Your task to perform on an android device: turn off translation in the chrome app Image 0: 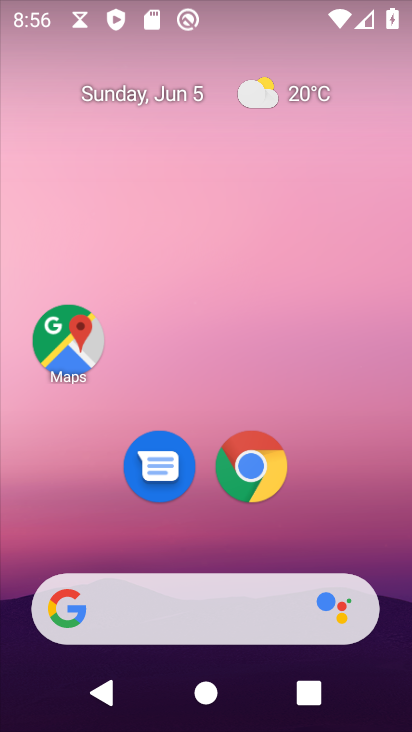
Step 0: click (254, 472)
Your task to perform on an android device: turn off translation in the chrome app Image 1: 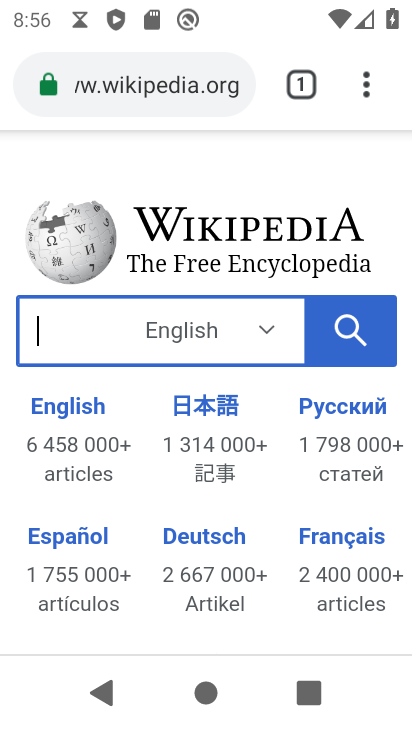
Step 1: click (373, 84)
Your task to perform on an android device: turn off translation in the chrome app Image 2: 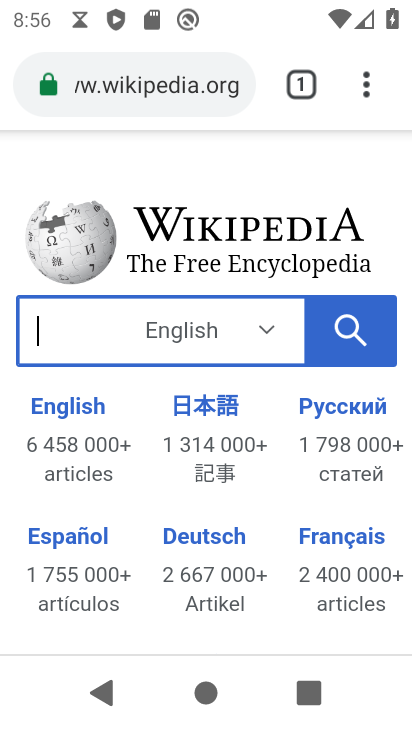
Step 2: click (367, 95)
Your task to perform on an android device: turn off translation in the chrome app Image 3: 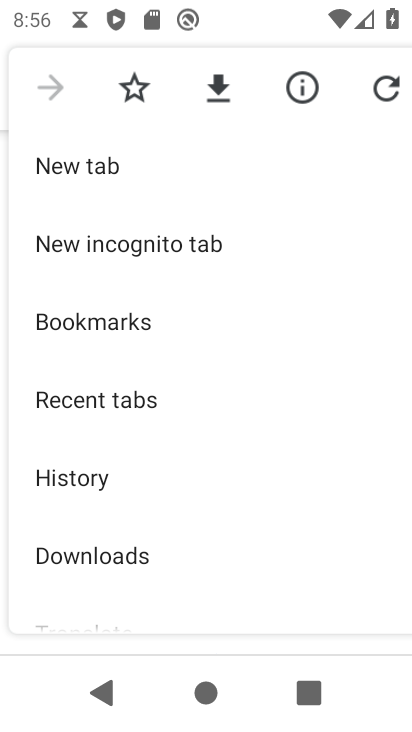
Step 3: drag from (187, 494) to (159, 187)
Your task to perform on an android device: turn off translation in the chrome app Image 4: 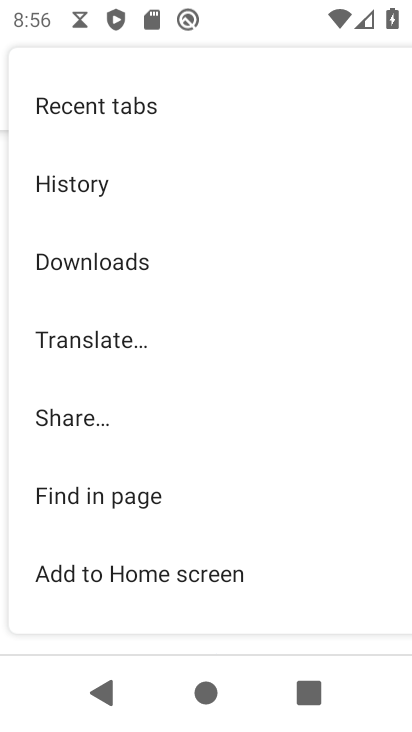
Step 4: click (137, 186)
Your task to perform on an android device: turn off translation in the chrome app Image 5: 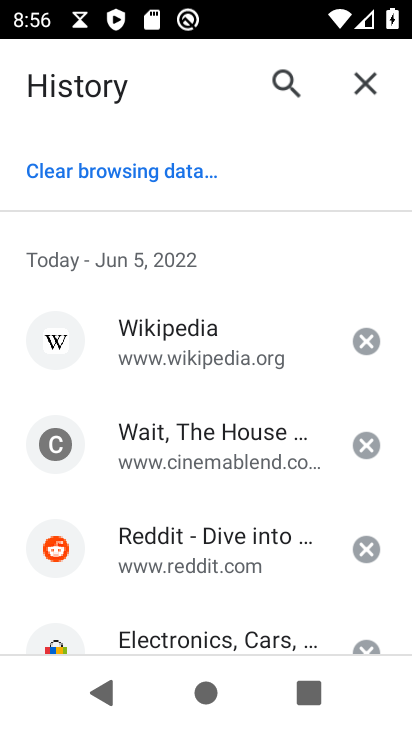
Step 5: click (359, 88)
Your task to perform on an android device: turn off translation in the chrome app Image 6: 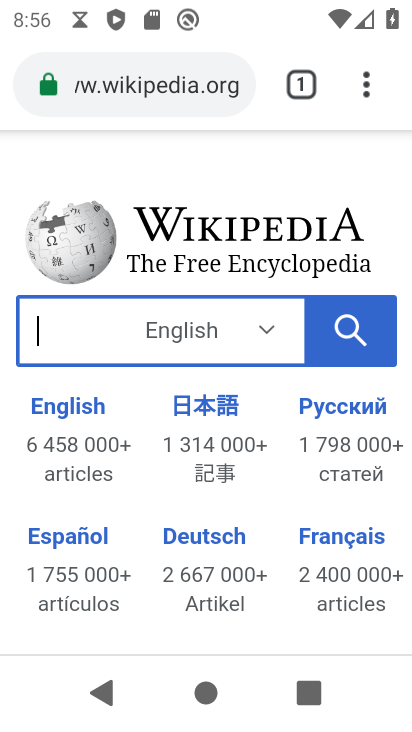
Step 6: click (369, 83)
Your task to perform on an android device: turn off translation in the chrome app Image 7: 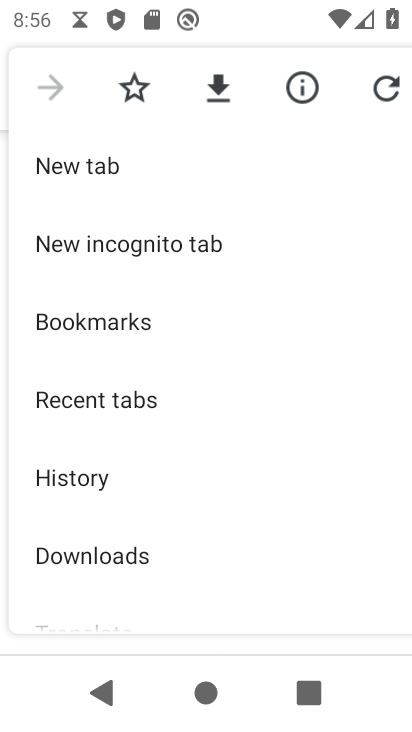
Step 7: drag from (113, 578) to (95, 357)
Your task to perform on an android device: turn off translation in the chrome app Image 8: 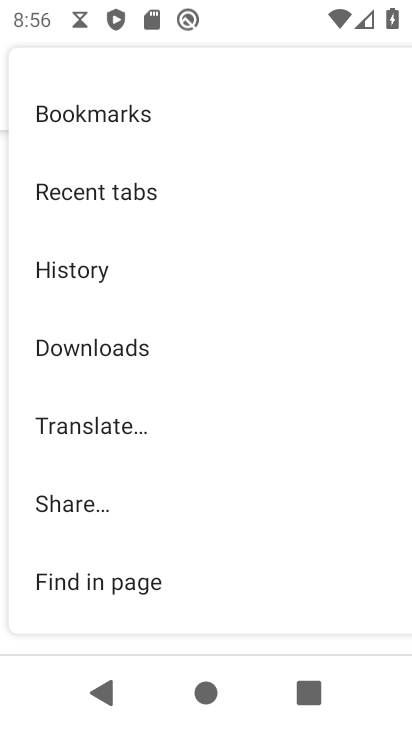
Step 8: drag from (84, 529) to (94, 321)
Your task to perform on an android device: turn off translation in the chrome app Image 9: 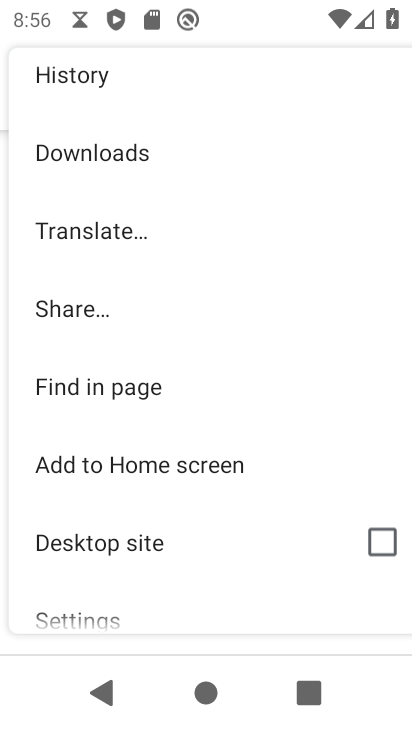
Step 9: drag from (111, 547) to (116, 339)
Your task to perform on an android device: turn off translation in the chrome app Image 10: 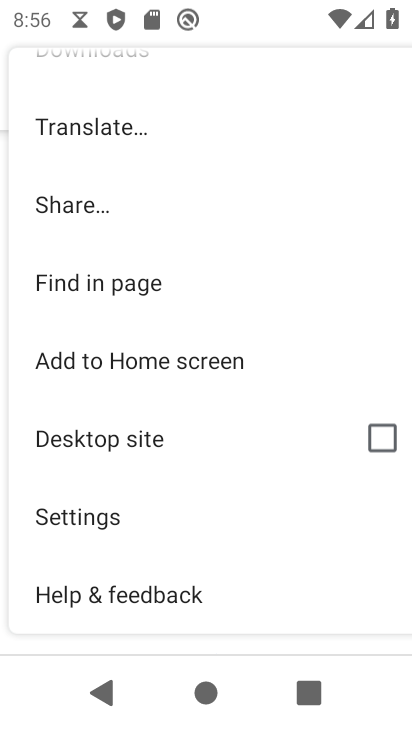
Step 10: click (101, 527)
Your task to perform on an android device: turn off translation in the chrome app Image 11: 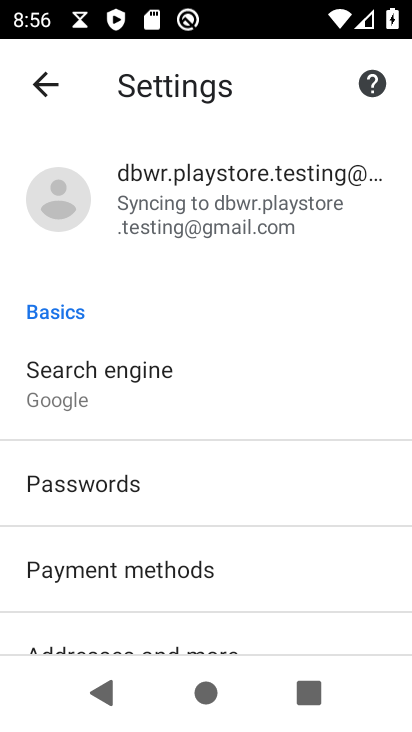
Step 11: drag from (108, 610) to (131, 431)
Your task to perform on an android device: turn off translation in the chrome app Image 12: 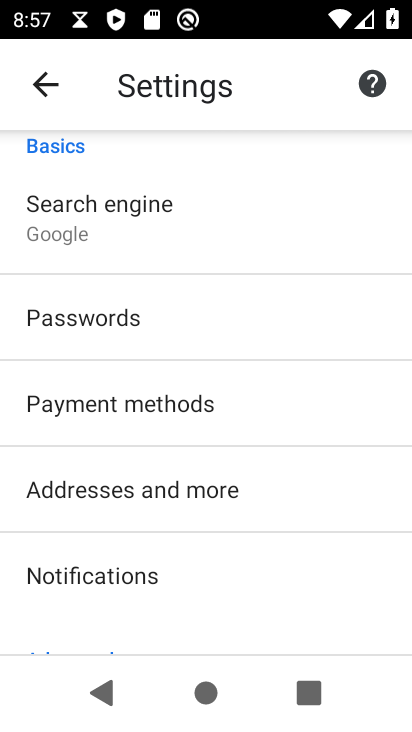
Step 12: drag from (176, 597) to (195, 351)
Your task to perform on an android device: turn off translation in the chrome app Image 13: 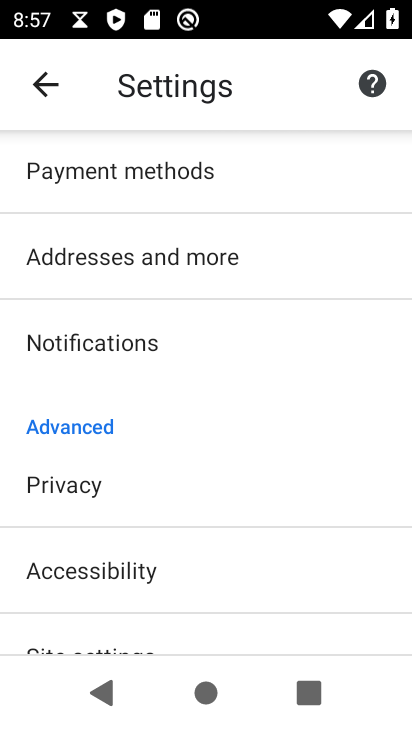
Step 13: drag from (139, 580) to (162, 357)
Your task to perform on an android device: turn off translation in the chrome app Image 14: 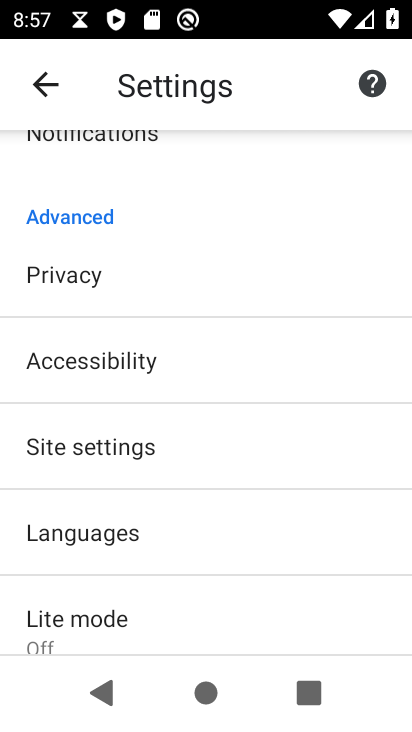
Step 14: click (92, 533)
Your task to perform on an android device: turn off translation in the chrome app Image 15: 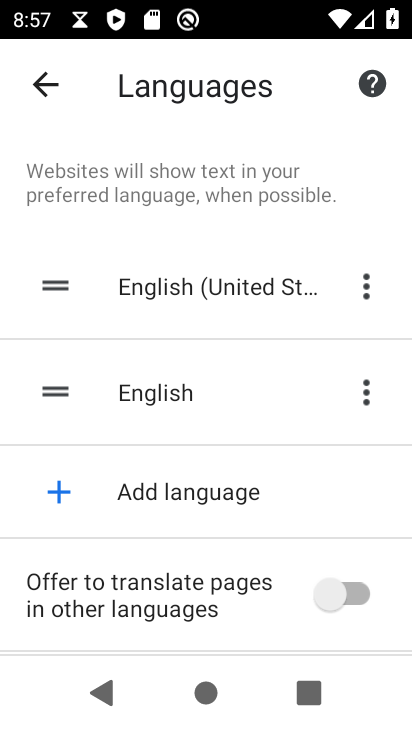
Step 15: click (351, 594)
Your task to perform on an android device: turn off translation in the chrome app Image 16: 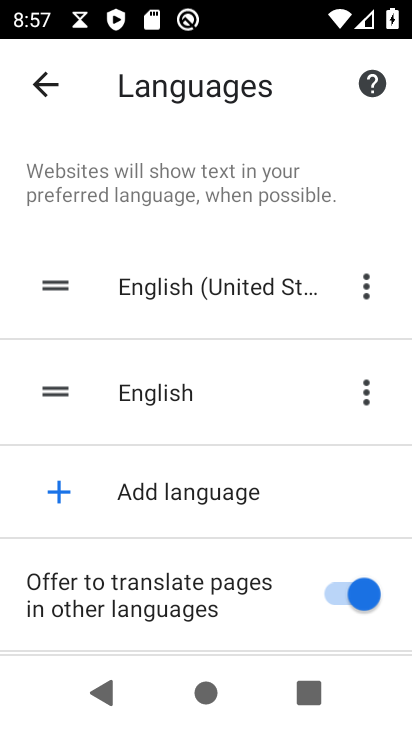
Step 16: click (321, 589)
Your task to perform on an android device: turn off translation in the chrome app Image 17: 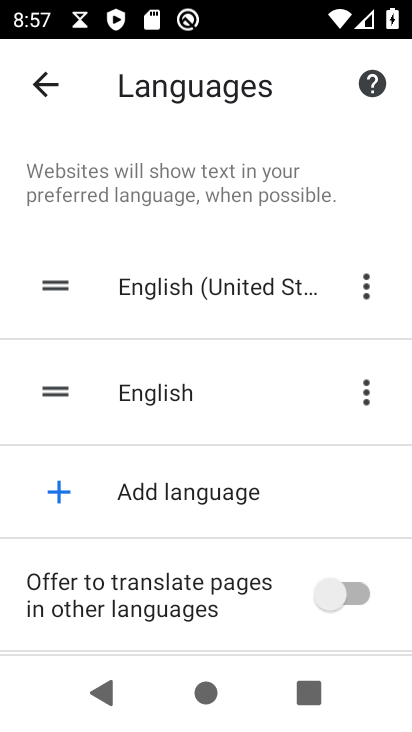
Step 17: task complete